Your task to perform on an android device: turn on notifications settings in the gmail app Image 0: 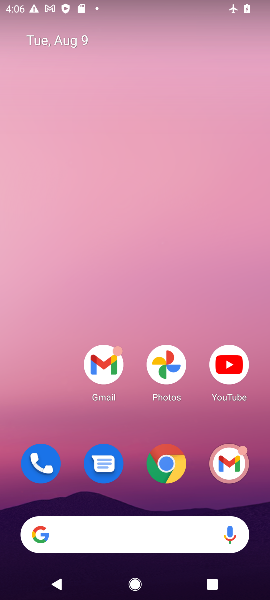
Step 0: click (103, 366)
Your task to perform on an android device: turn on notifications settings in the gmail app Image 1: 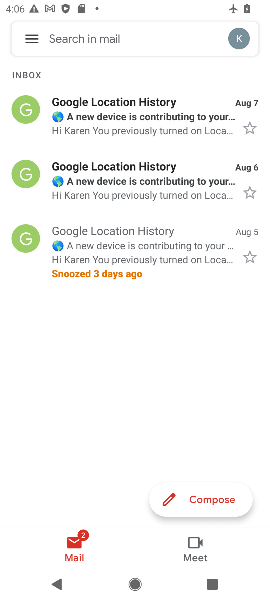
Step 1: click (34, 40)
Your task to perform on an android device: turn on notifications settings in the gmail app Image 2: 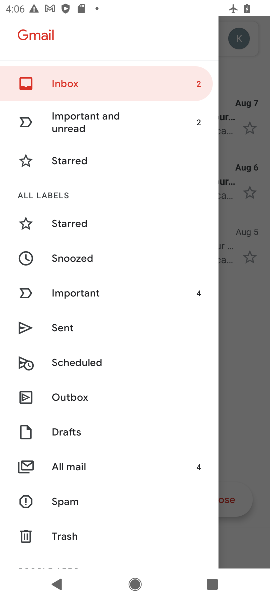
Step 2: drag from (67, 523) to (64, 228)
Your task to perform on an android device: turn on notifications settings in the gmail app Image 3: 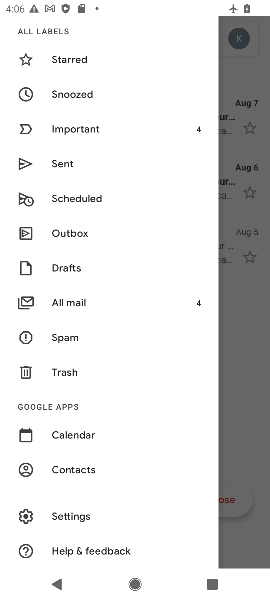
Step 3: click (63, 522)
Your task to perform on an android device: turn on notifications settings in the gmail app Image 4: 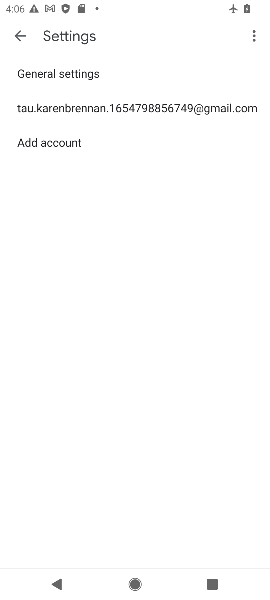
Step 4: click (54, 110)
Your task to perform on an android device: turn on notifications settings in the gmail app Image 5: 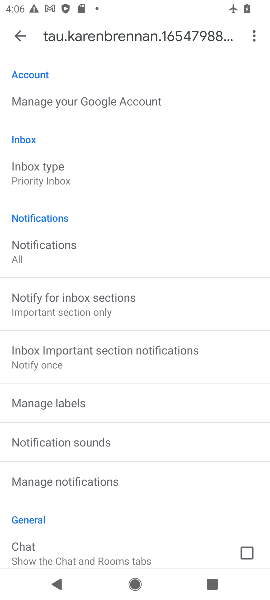
Step 5: click (63, 483)
Your task to perform on an android device: turn on notifications settings in the gmail app Image 6: 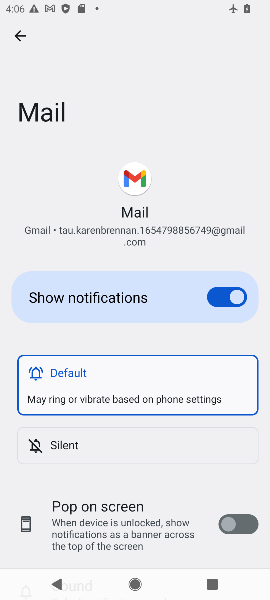
Step 6: task complete